Your task to perform on an android device: When is my next appointment? Image 0: 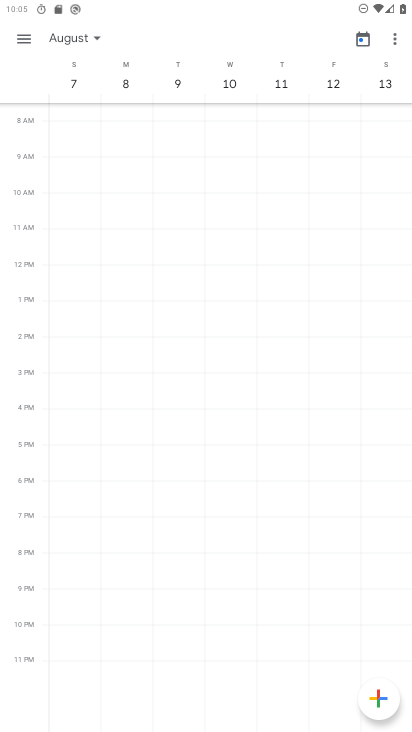
Step 0: click (88, 35)
Your task to perform on an android device: When is my next appointment? Image 1: 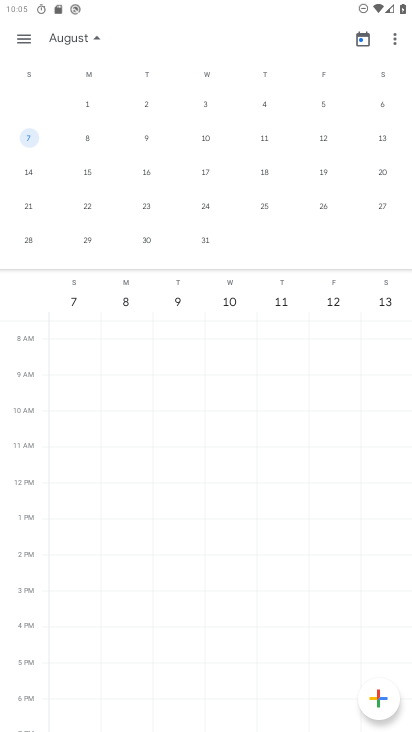
Step 1: drag from (42, 152) to (396, 155)
Your task to perform on an android device: When is my next appointment? Image 2: 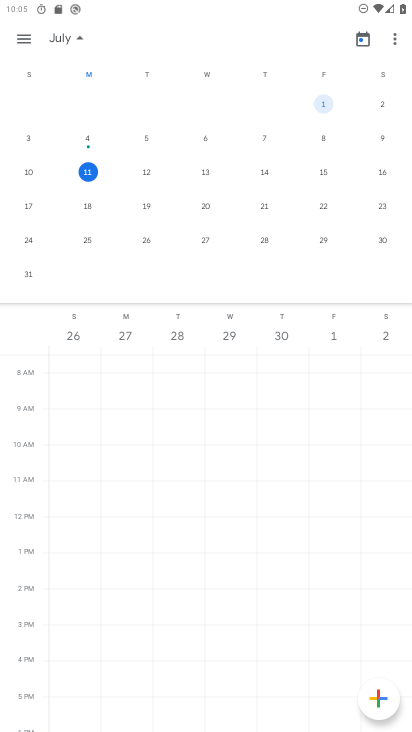
Step 2: click (92, 168)
Your task to perform on an android device: When is my next appointment? Image 3: 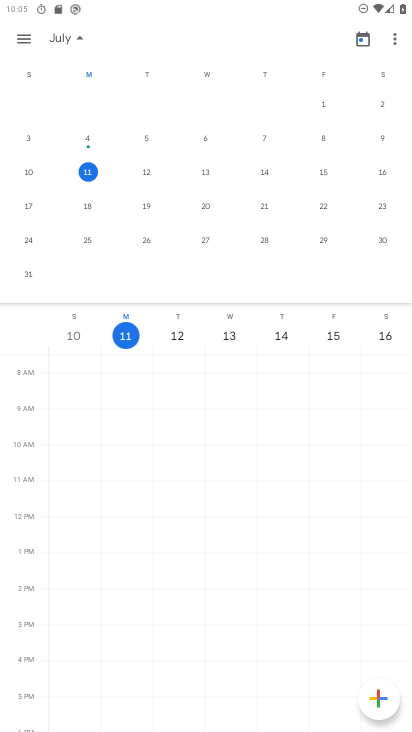
Step 3: task complete